Your task to perform on an android device: empty trash in the gmail app Image 0: 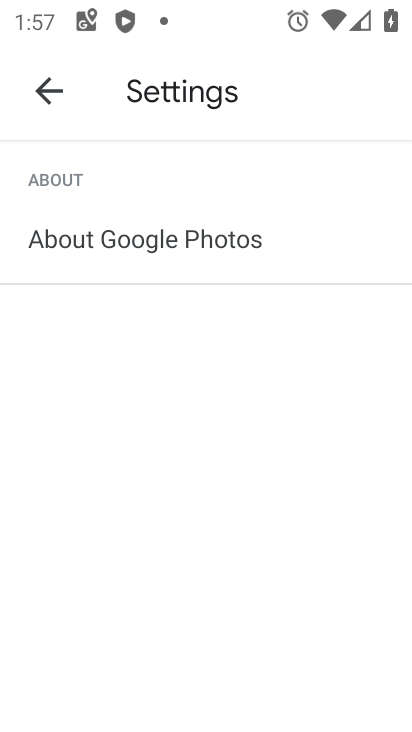
Step 0: press home button
Your task to perform on an android device: empty trash in the gmail app Image 1: 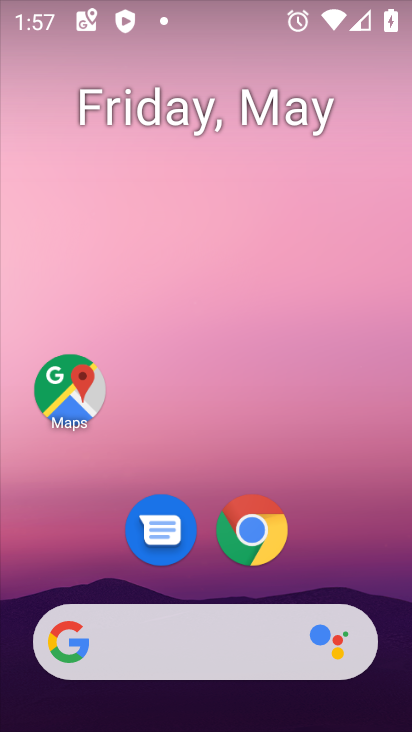
Step 1: drag from (322, 437) to (316, 0)
Your task to perform on an android device: empty trash in the gmail app Image 2: 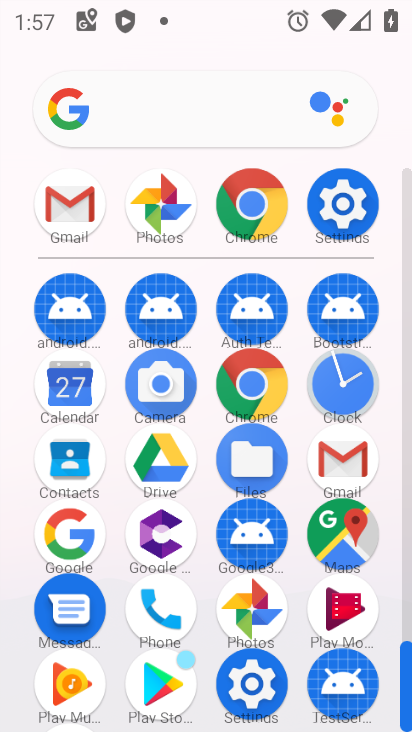
Step 2: click (62, 209)
Your task to perform on an android device: empty trash in the gmail app Image 3: 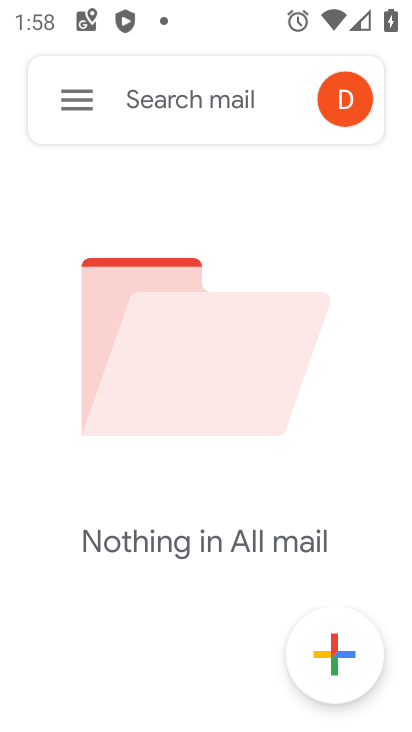
Step 3: click (78, 109)
Your task to perform on an android device: empty trash in the gmail app Image 4: 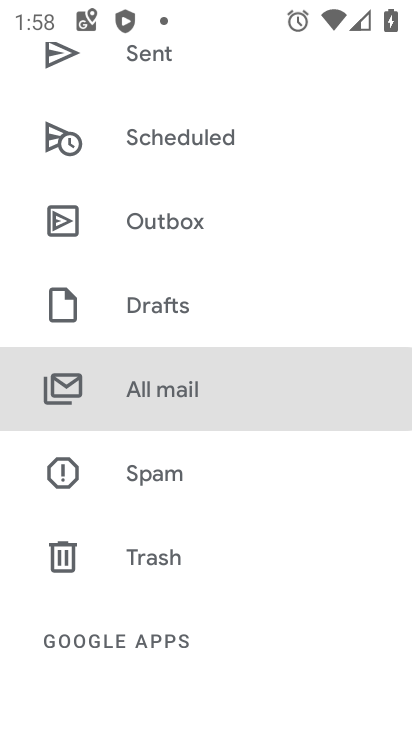
Step 4: click (153, 553)
Your task to perform on an android device: empty trash in the gmail app Image 5: 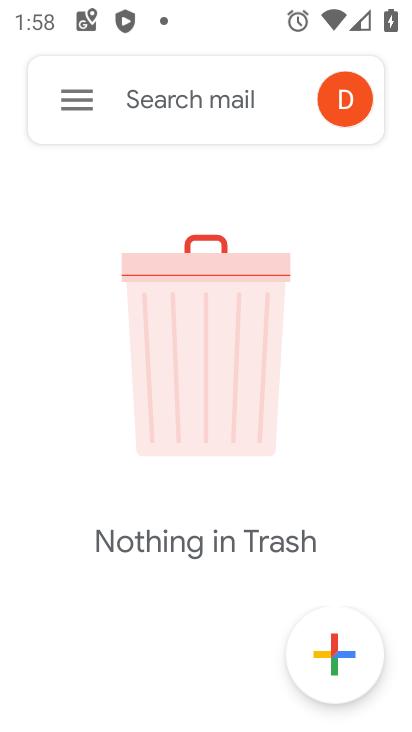
Step 5: task complete